Your task to perform on an android device: Search for apple airpods on walmart, select the first entry, add it to the cart, then select checkout. Image 0: 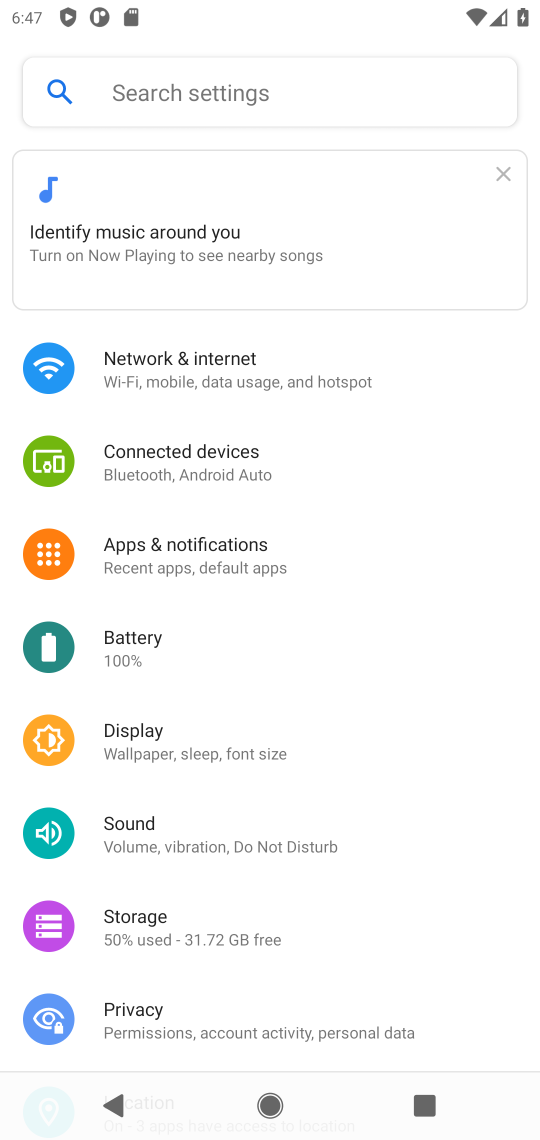
Step 0: press home button
Your task to perform on an android device: Search for apple airpods on walmart, select the first entry, add it to the cart, then select checkout. Image 1: 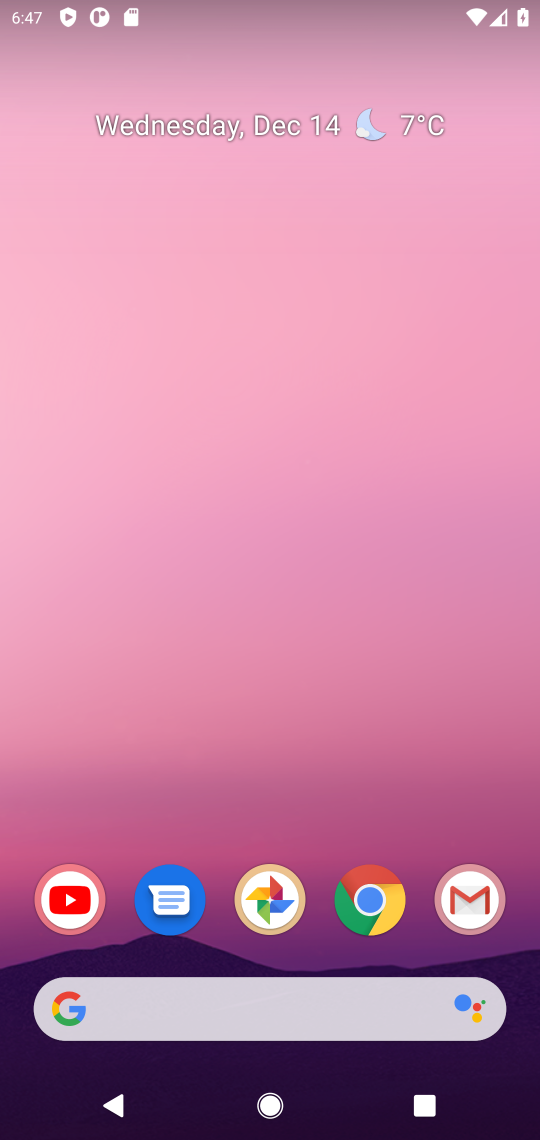
Step 1: click (269, 1011)
Your task to perform on an android device: Search for apple airpods on walmart, select the first entry, add it to the cart, then select checkout. Image 2: 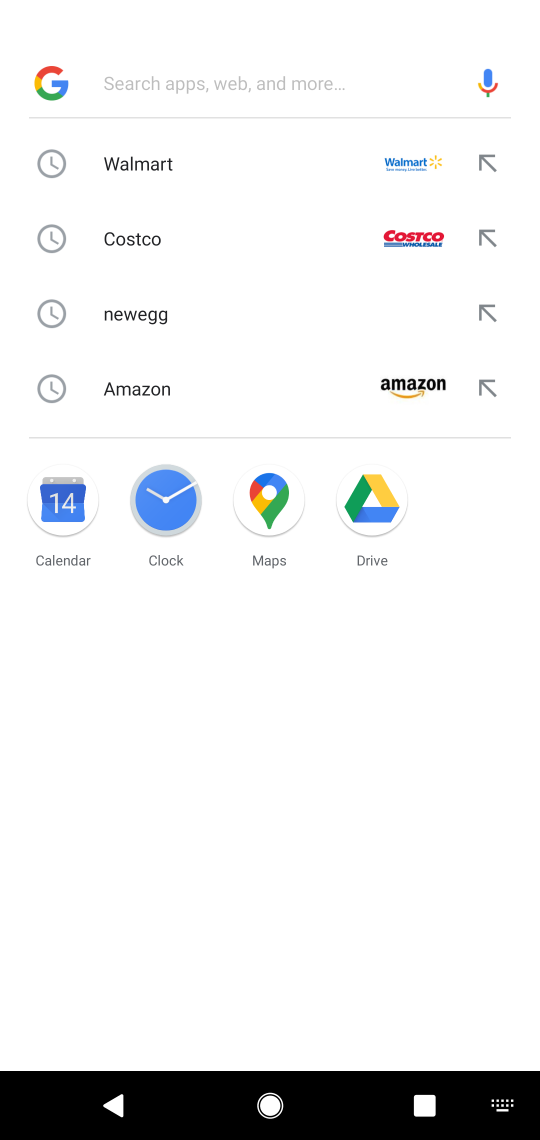
Step 2: click (168, 167)
Your task to perform on an android device: Search for apple airpods on walmart, select the first entry, add it to the cart, then select checkout. Image 3: 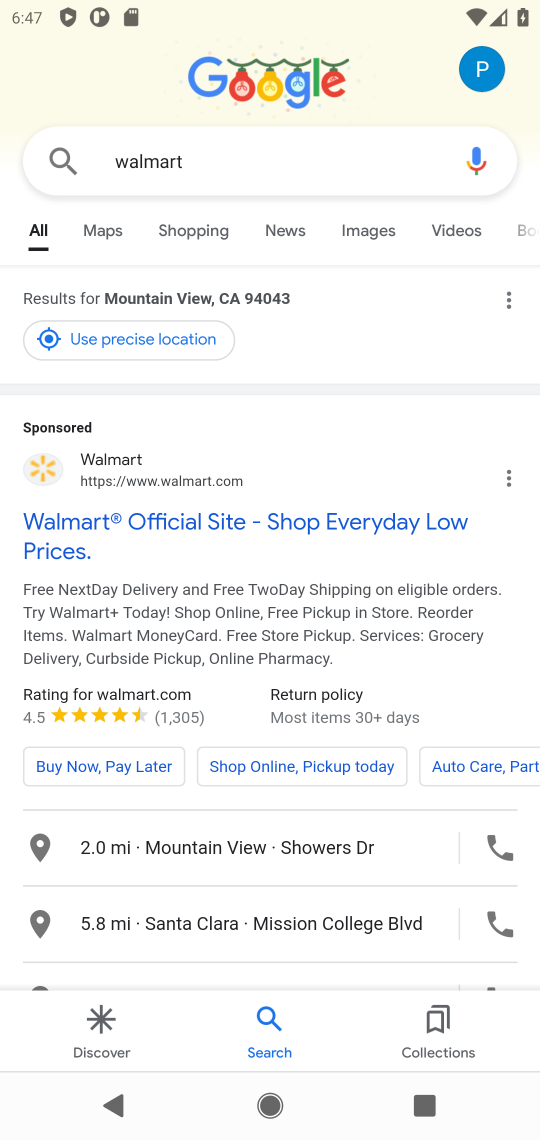
Step 3: click (118, 464)
Your task to perform on an android device: Search for apple airpods on walmart, select the first entry, add it to the cart, then select checkout. Image 4: 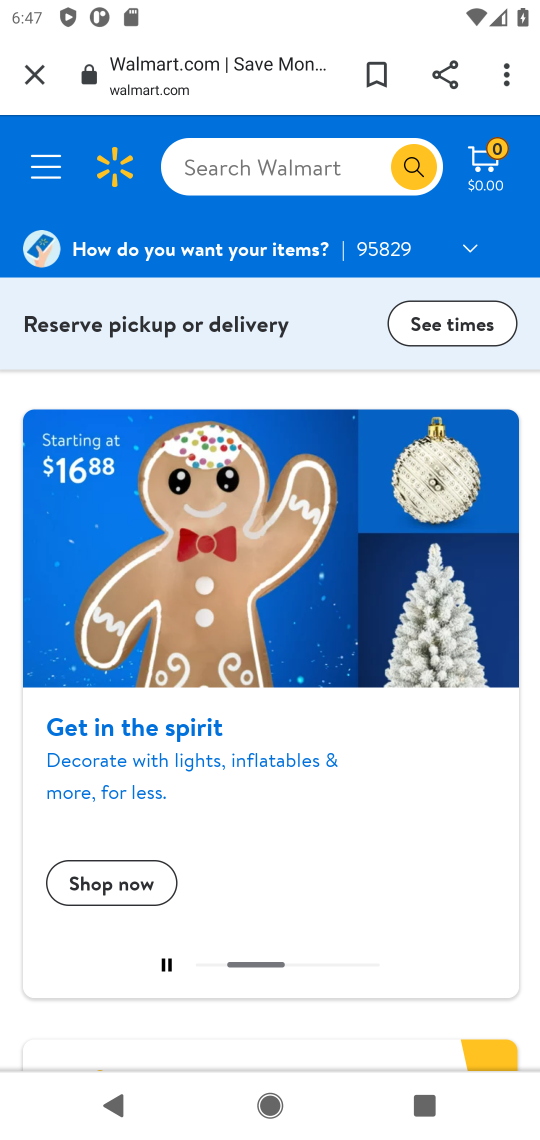
Step 4: click (265, 188)
Your task to perform on an android device: Search for apple airpods on walmart, select the first entry, add it to the cart, then select checkout. Image 5: 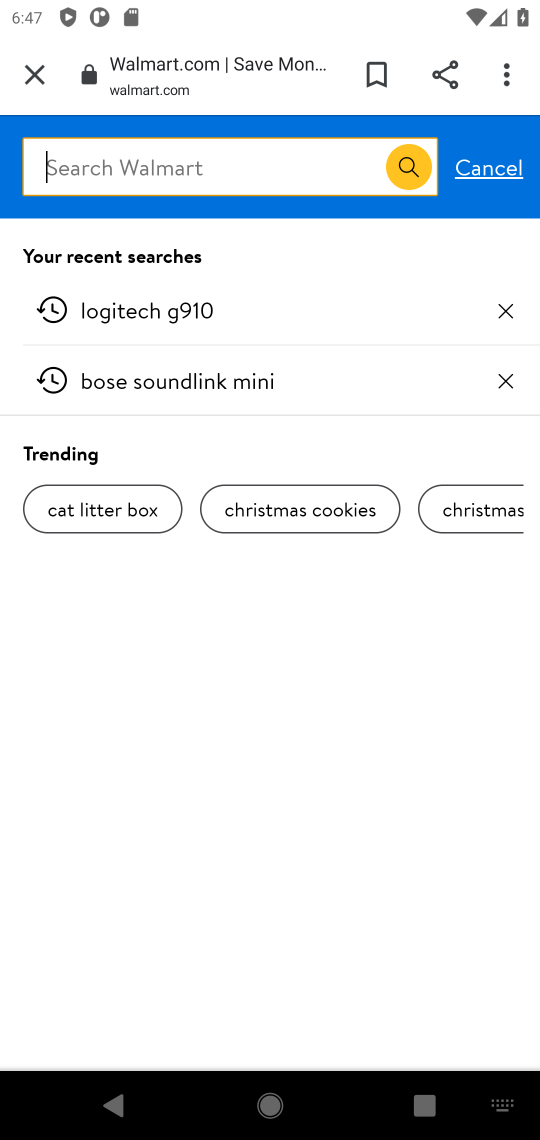
Step 5: type "walmart"
Your task to perform on an android device: Search for apple airpods on walmart, select the first entry, add it to the cart, then select checkout. Image 6: 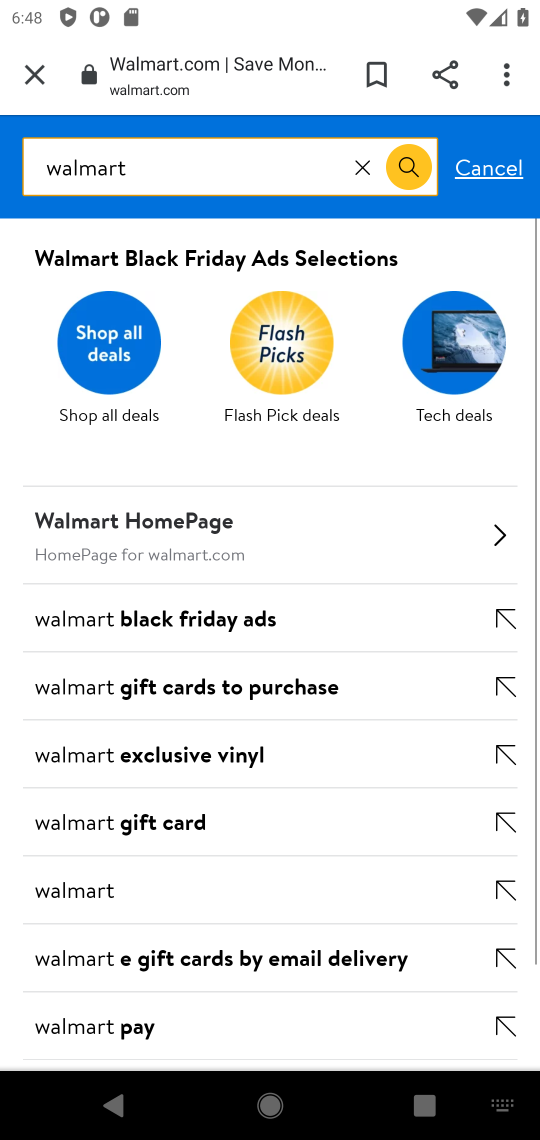
Step 6: click (349, 149)
Your task to perform on an android device: Search for apple airpods on walmart, select the first entry, add it to the cart, then select checkout. Image 7: 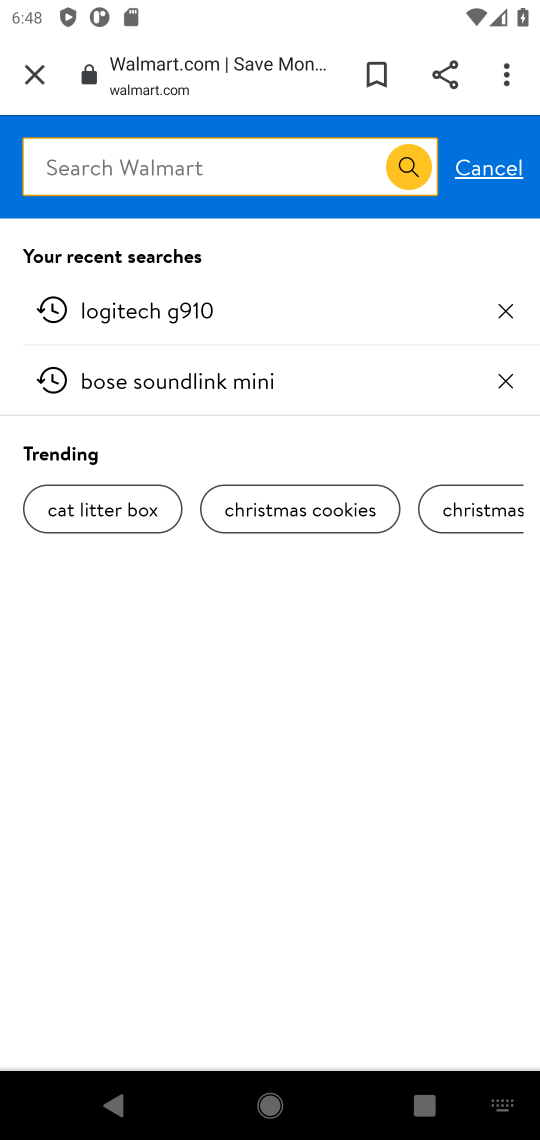
Step 7: type "apple airpods"
Your task to perform on an android device: Search for apple airpods on walmart, select the first entry, add it to the cart, then select checkout. Image 8: 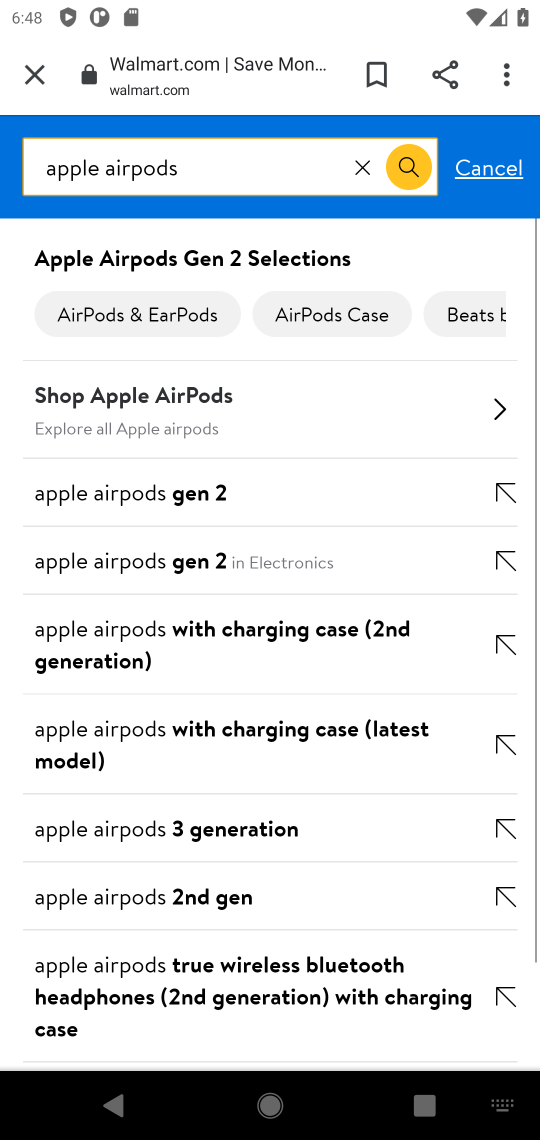
Step 8: click (417, 168)
Your task to perform on an android device: Search for apple airpods on walmart, select the first entry, add it to the cart, then select checkout. Image 9: 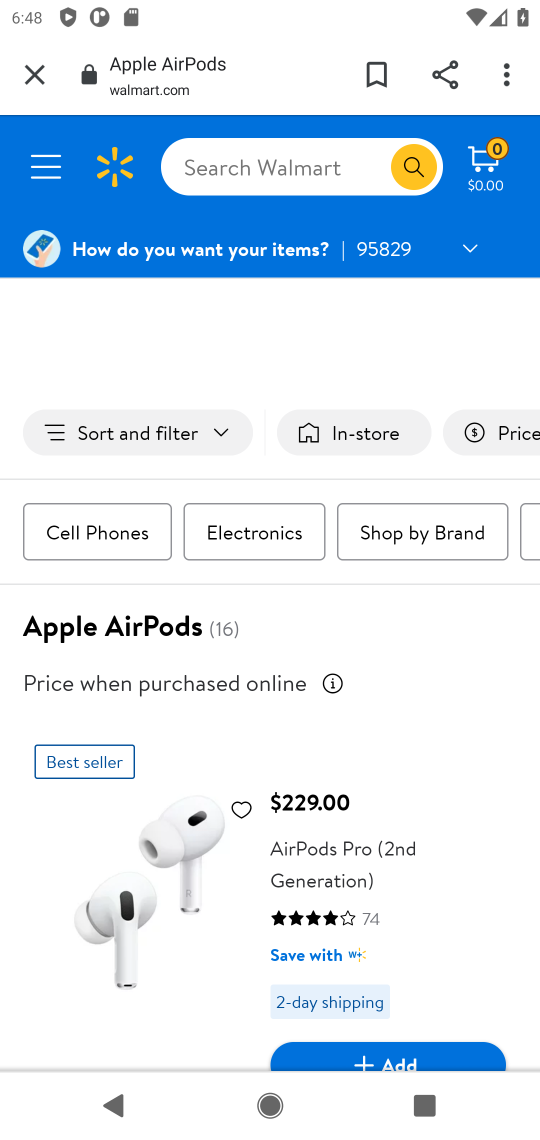
Step 9: click (382, 1062)
Your task to perform on an android device: Search for apple airpods on walmart, select the first entry, add it to the cart, then select checkout. Image 10: 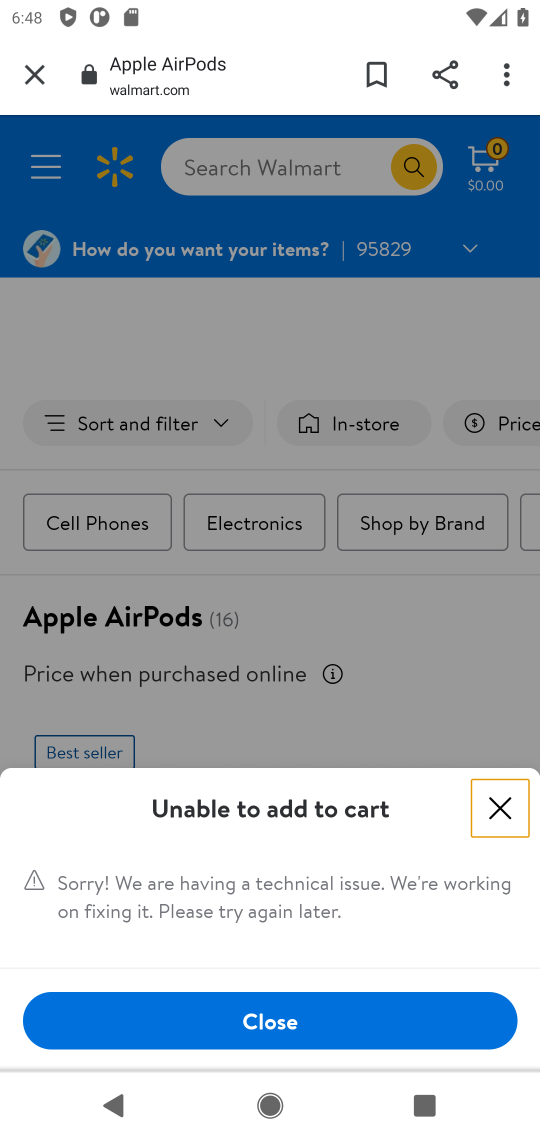
Step 10: task complete